Your task to perform on an android device: check battery use Image 0: 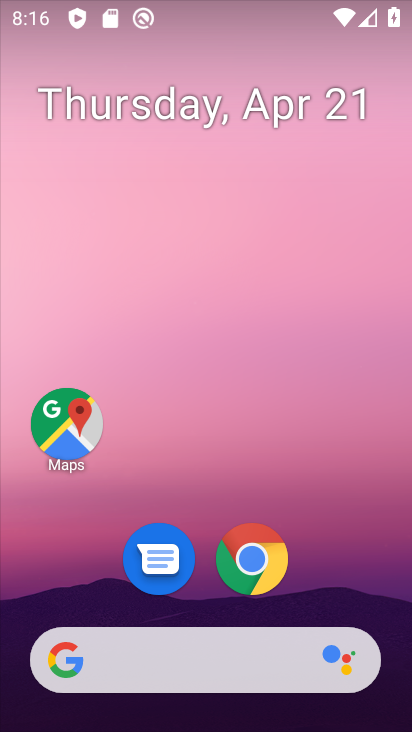
Step 0: drag from (314, 443) to (306, 214)
Your task to perform on an android device: check battery use Image 1: 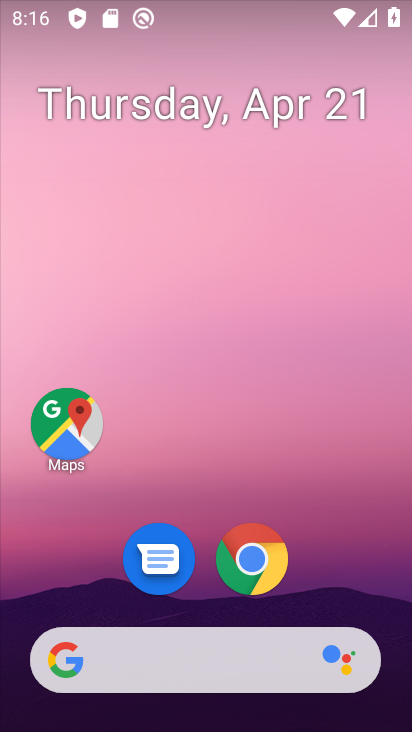
Step 1: drag from (319, 556) to (300, 189)
Your task to perform on an android device: check battery use Image 2: 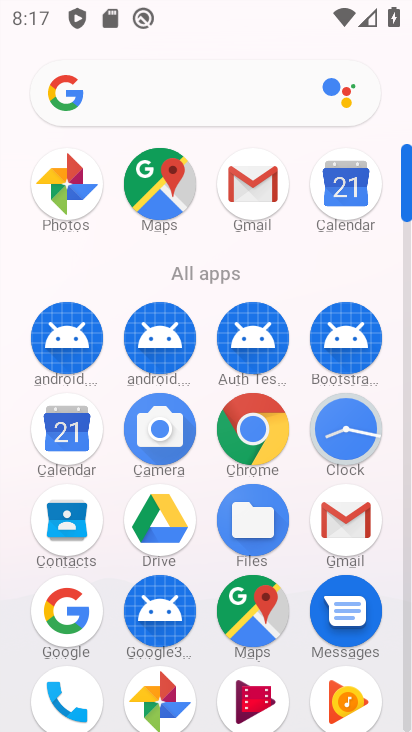
Step 2: drag from (199, 641) to (212, 252)
Your task to perform on an android device: check battery use Image 3: 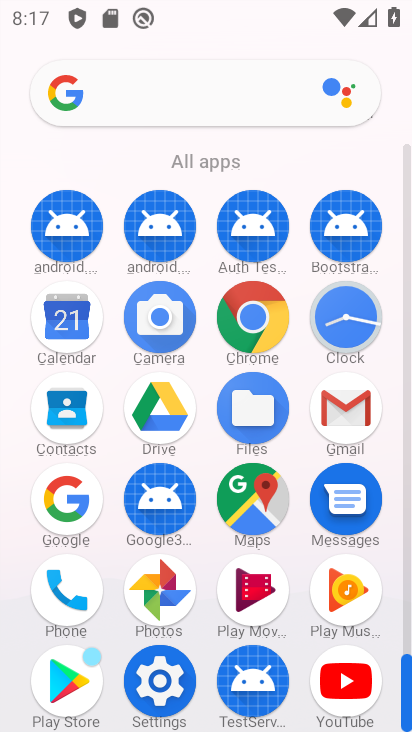
Step 3: click (163, 647)
Your task to perform on an android device: check battery use Image 4: 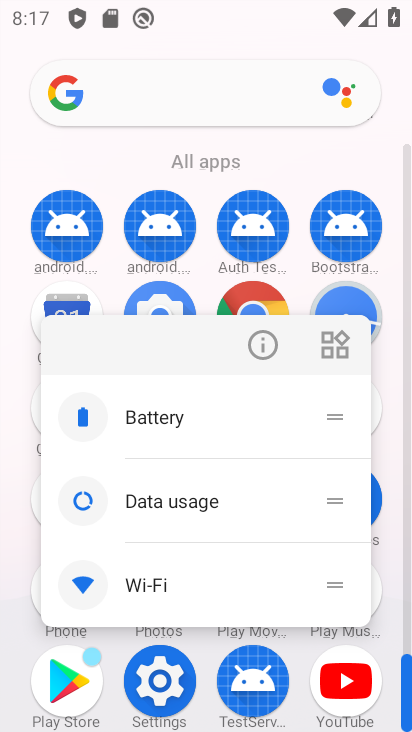
Step 4: click (157, 693)
Your task to perform on an android device: check battery use Image 5: 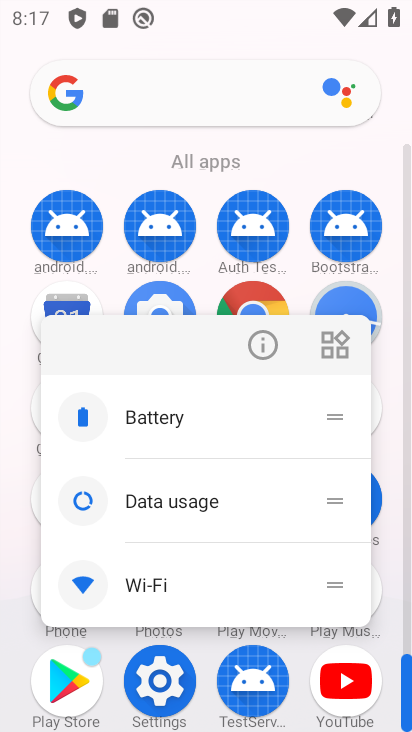
Step 5: click (166, 674)
Your task to perform on an android device: check battery use Image 6: 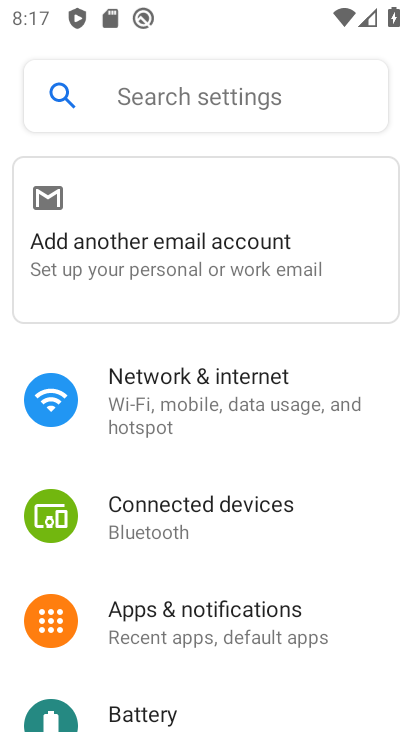
Step 6: click (150, 709)
Your task to perform on an android device: check battery use Image 7: 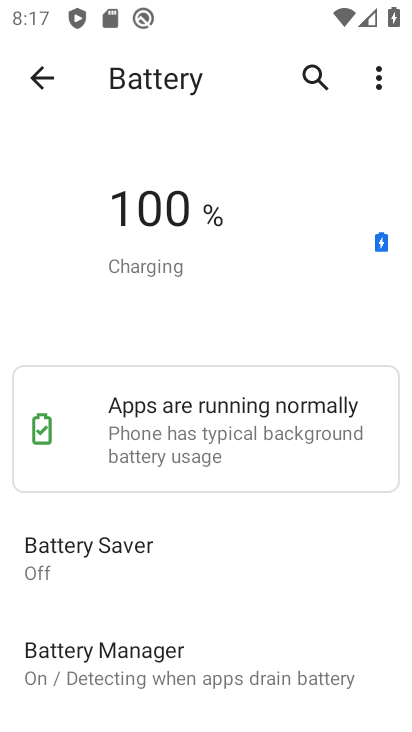
Step 7: task complete